Your task to perform on an android device: delete a single message in the gmail app Image 0: 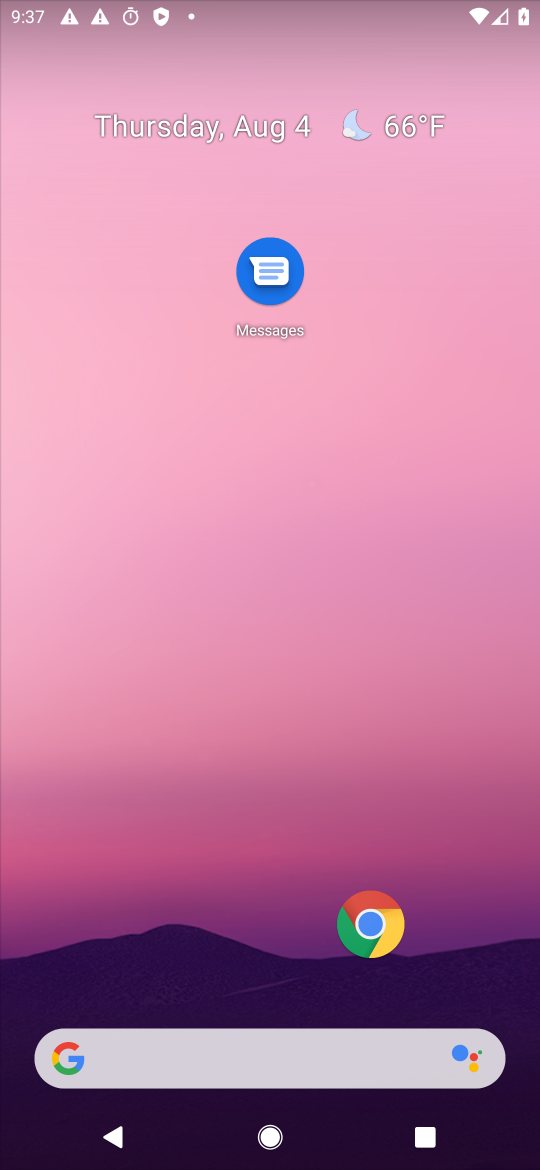
Step 0: drag from (247, 973) to (324, 222)
Your task to perform on an android device: delete a single message in the gmail app Image 1: 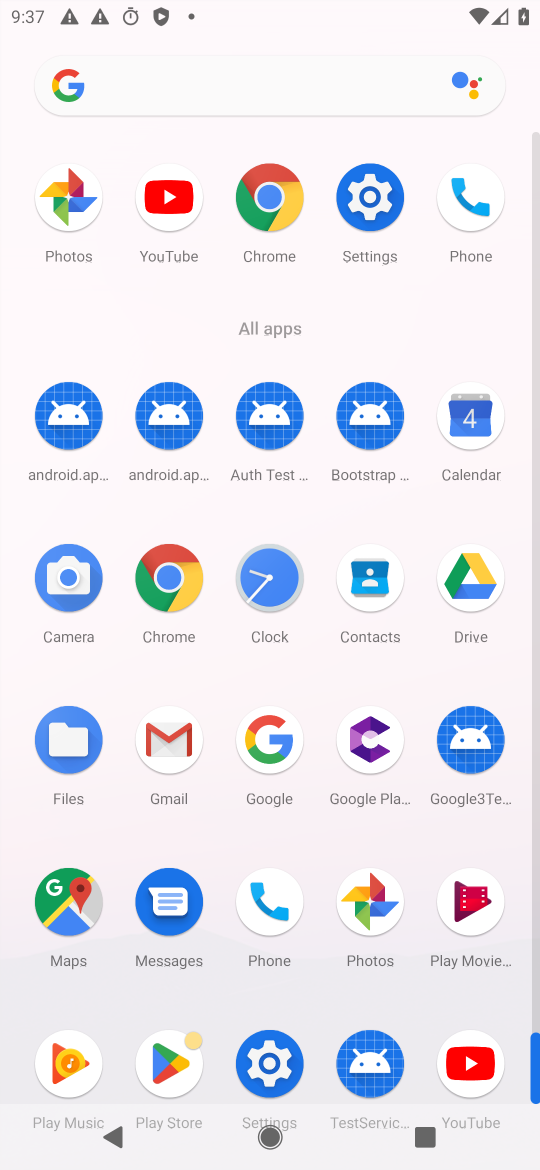
Step 1: click (179, 731)
Your task to perform on an android device: delete a single message in the gmail app Image 2: 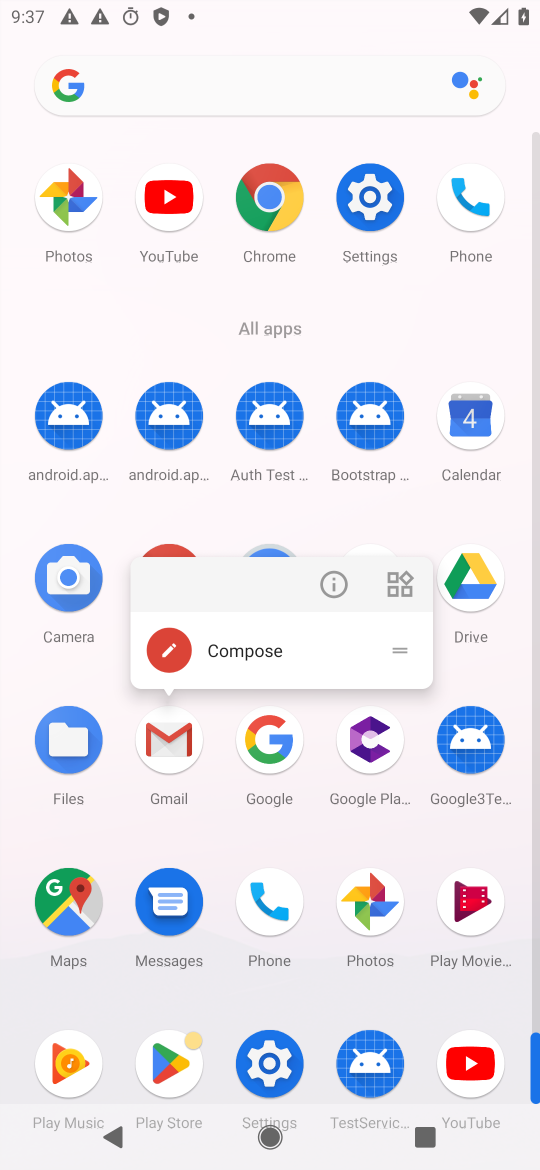
Step 2: click (325, 570)
Your task to perform on an android device: delete a single message in the gmail app Image 3: 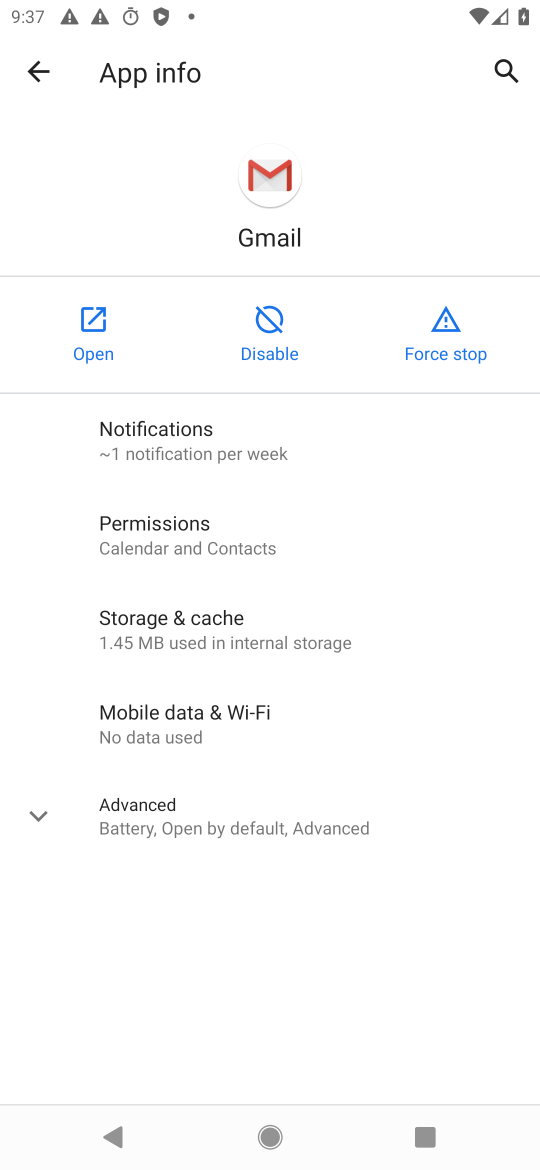
Step 3: click (99, 307)
Your task to perform on an android device: delete a single message in the gmail app Image 4: 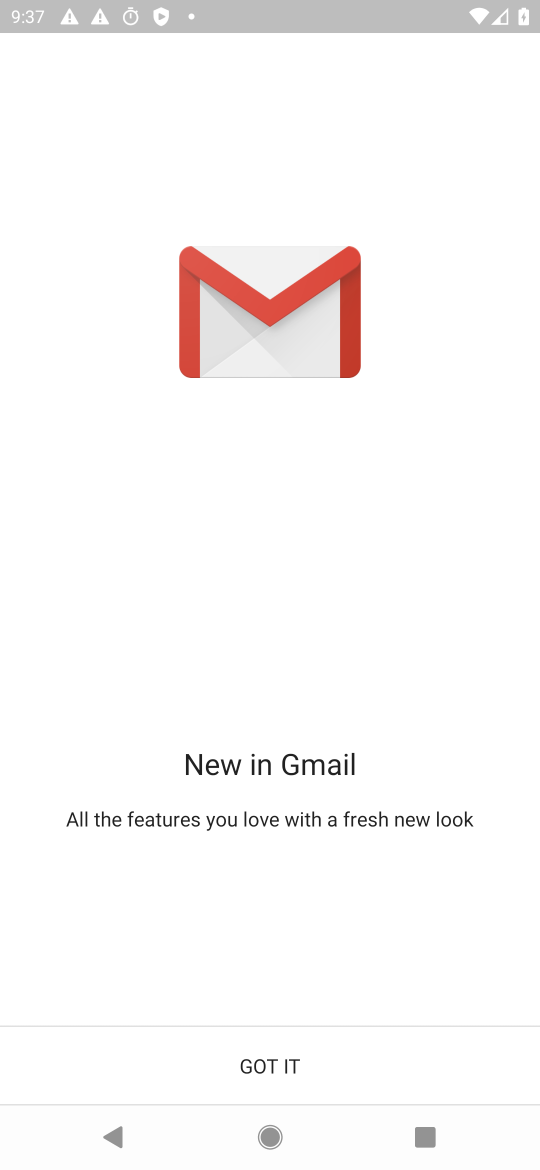
Step 4: click (286, 1071)
Your task to perform on an android device: delete a single message in the gmail app Image 5: 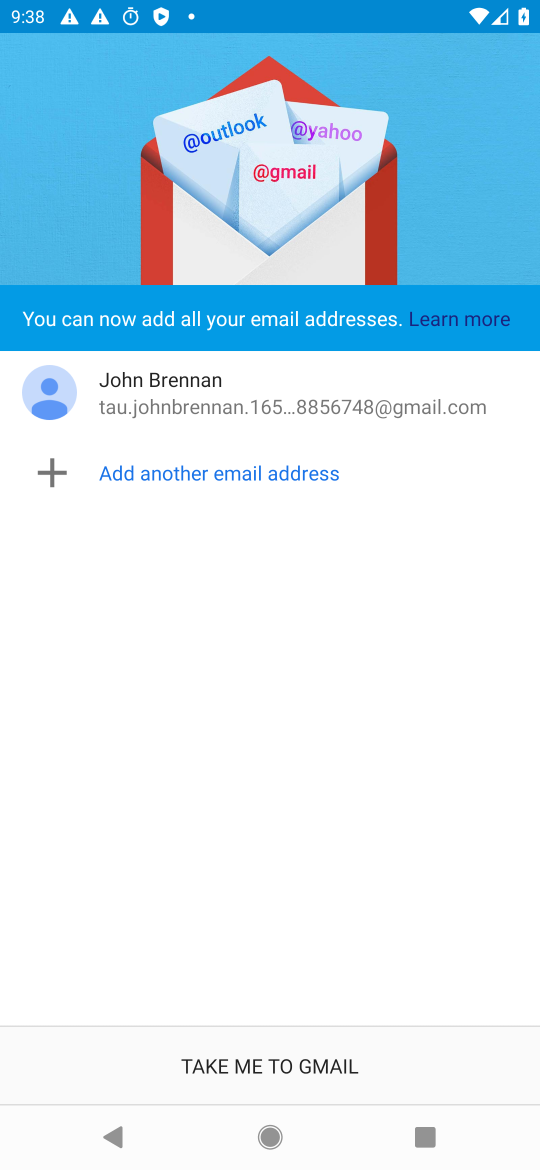
Step 5: click (232, 1062)
Your task to perform on an android device: delete a single message in the gmail app Image 6: 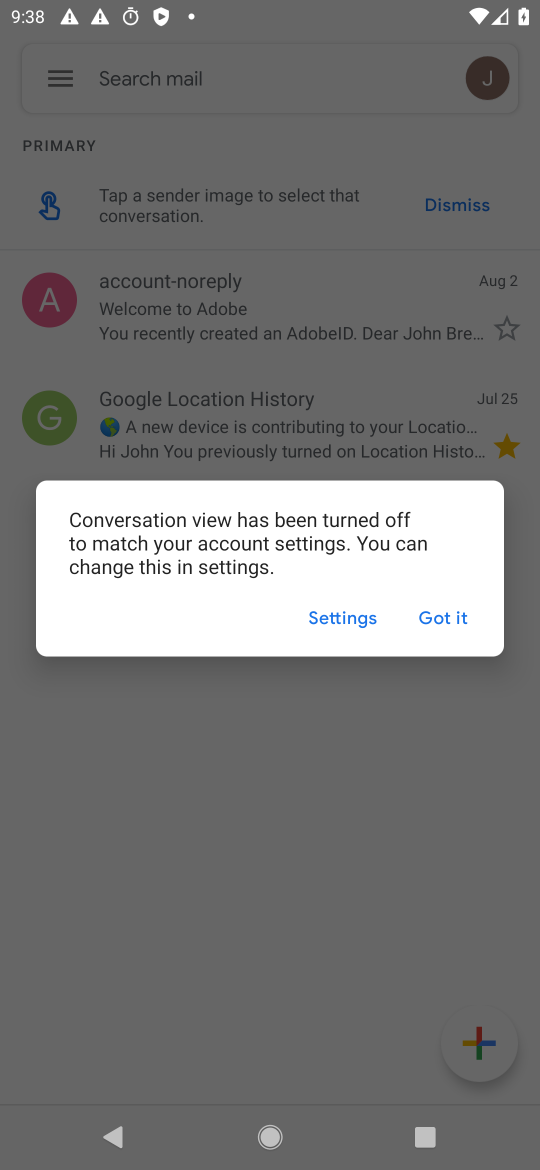
Step 6: click (440, 619)
Your task to perform on an android device: delete a single message in the gmail app Image 7: 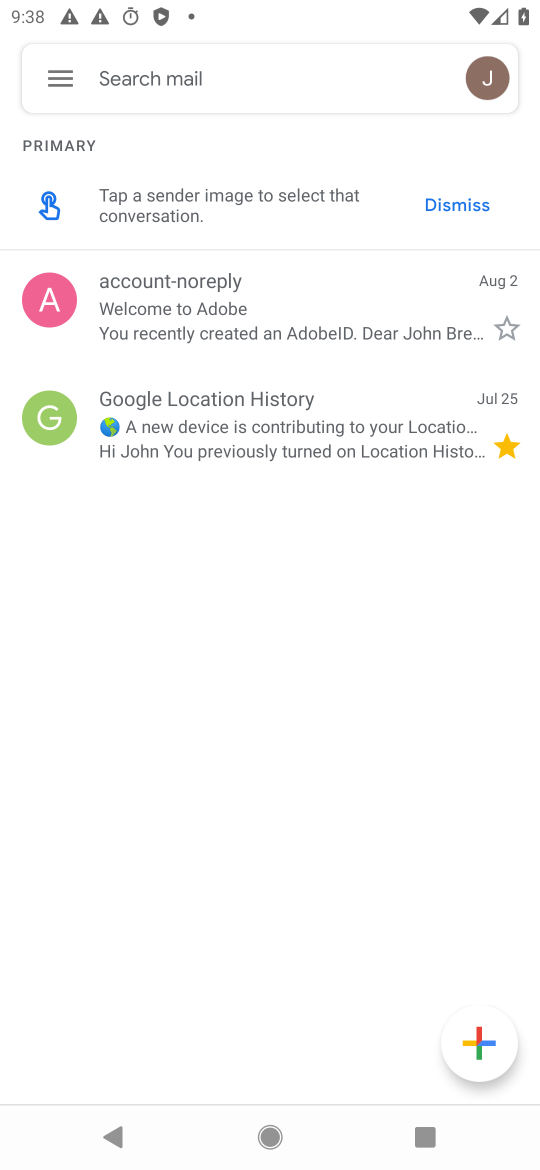
Step 7: click (258, 314)
Your task to perform on an android device: delete a single message in the gmail app Image 8: 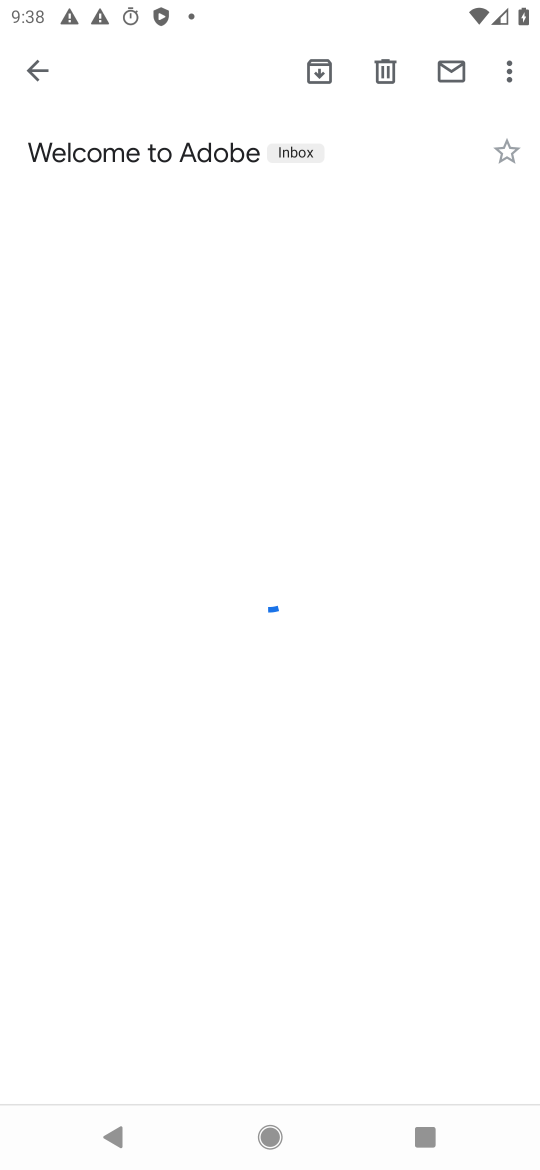
Step 8: click (379, 61)
Your task to perform on an android device: delete a single message in the gmail app Image 9: 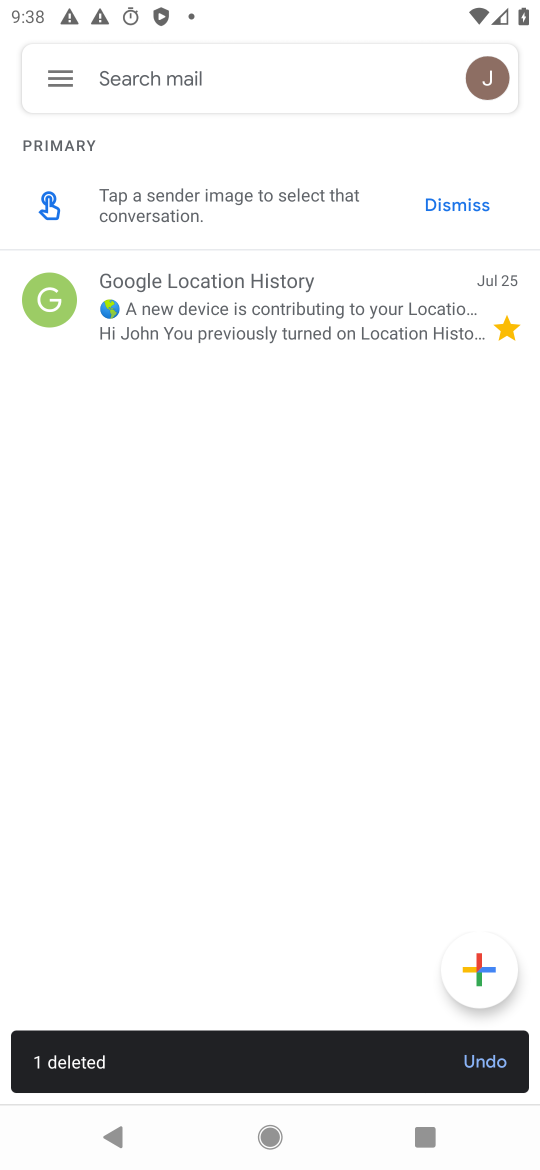
Step 9: task complete